Your task to perform on an android device: Search for sushi restaurants on Maps Image 0: 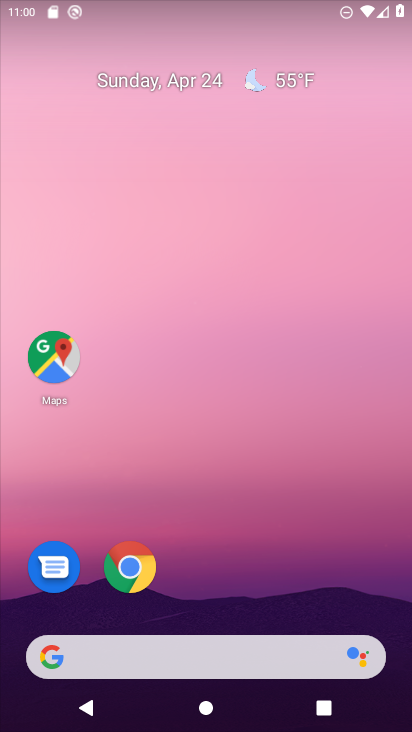
Step 0: click (58, 351)
Your task to perform on an android device: Search for sushi restaurants on Maps Image 1: 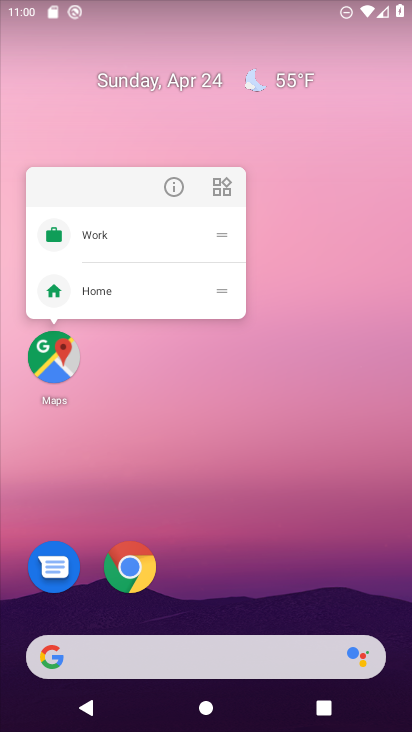
Step 1: click (58, 352)
Your task to perform on an android device: Search for sushi restaurants on Maps Image 2: 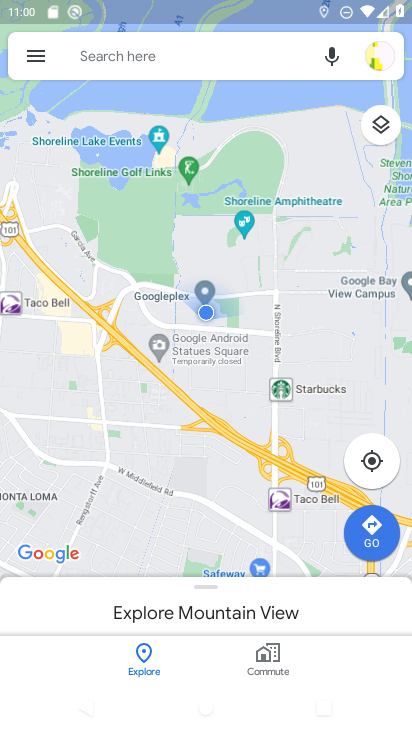
Step 2: click (106, 51)
Your task to perform on an android device: Search for sushi restaurants on Maps Image 3: 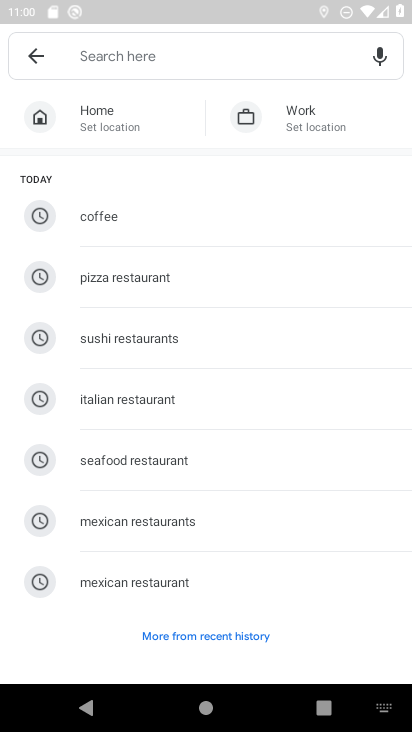
Step 3: type "sushi restaurants"
Your task to perform on an android device: Search for sushi restaurants on Maps Image 4: 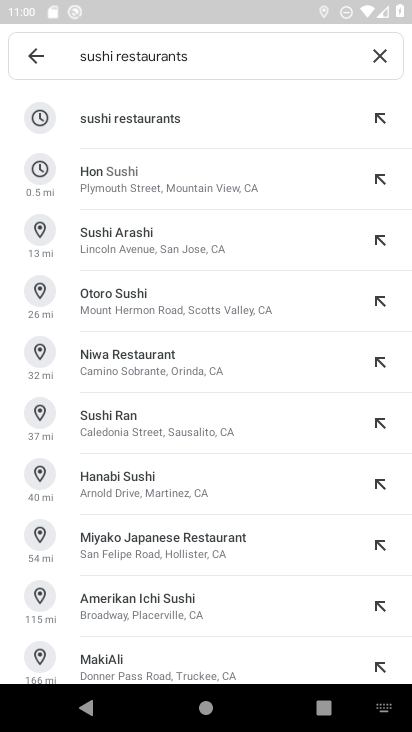
Step 4: click (110, 112)
Your task to perform on an android device: Search for sushi restaurants on Maps Image 5: 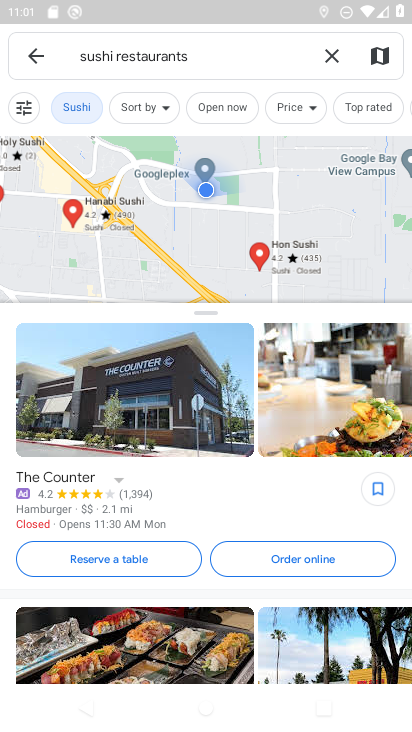
Step 5: press back button
Your task to perform on an android device: Search for sushi restaurants on Maps Image 6: 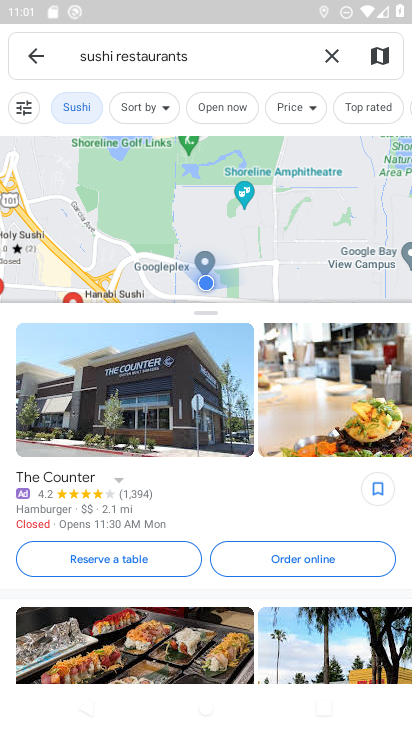
Step 6: press back button
Your task to perform on an android device: Search for sushi restaurants on Maps Image 7: 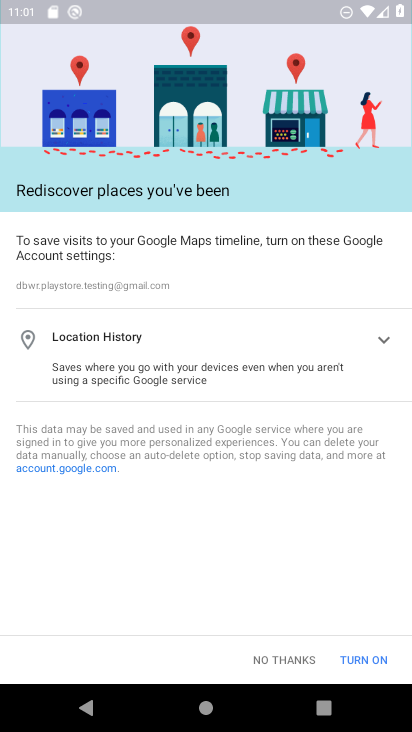
Step 7: click (345, 656)
Your task to perform on an android device: Search for sushi restaurants on Maps Image 8: 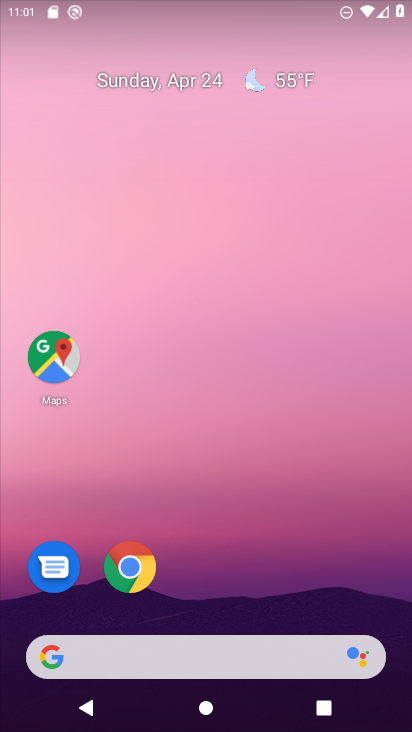
Step 8: drag from (388, 618) to (335, 198)
Your task to perform on an android device: Search for sushi restaurants on Maps Image 9: 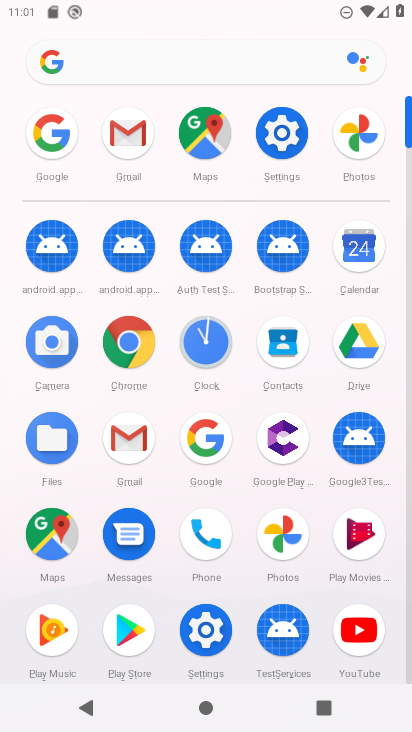
Step 9: click (34, 527)
Your task to perform on an android device: Search for sushi restaurants on Maps Image 10: 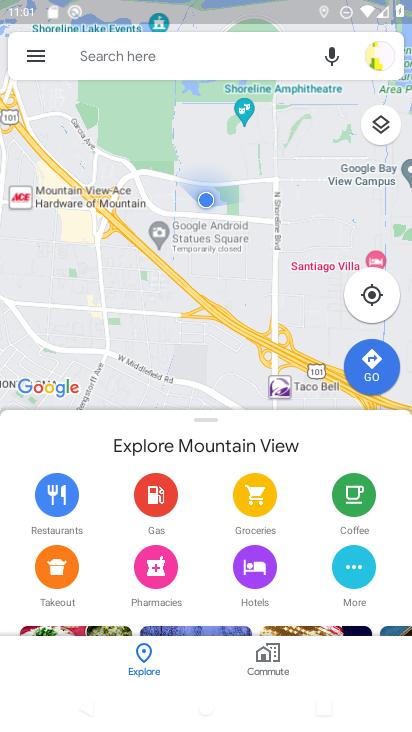
Step 10: click (87, 54)
Your task to perform on an android device: Search for sushi restaurants on Maps Image 11: 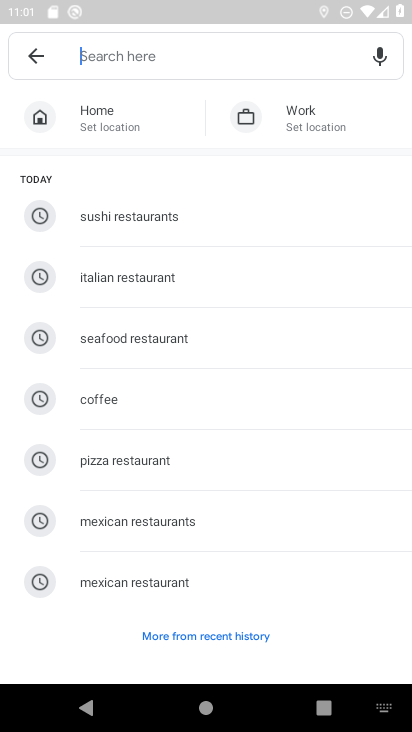
Step 11: type "sushi restaurants"
Your task to perform on an android device: Search for sushi restaurants on Maps Image 12: 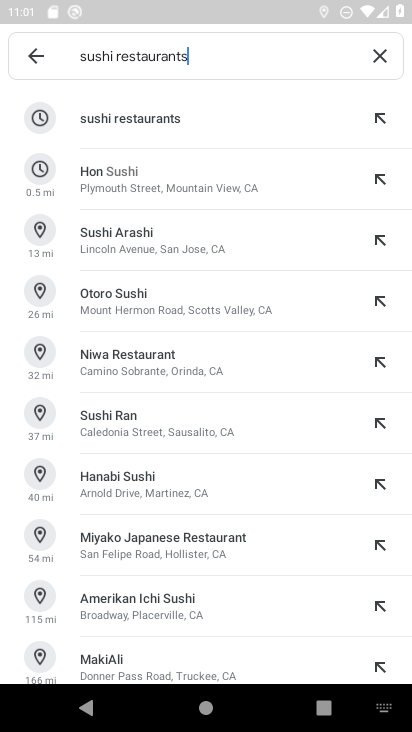
Step 12: click (132, 124)
Your task to perform on an android device: Search for sushi restaurants on Maps Image 13: 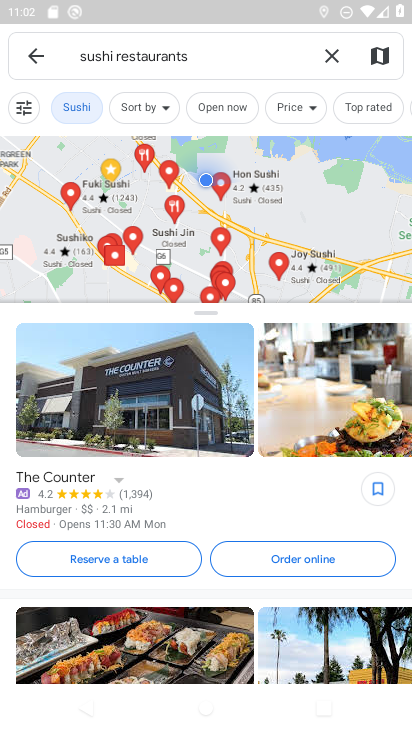
Step 13: task complete